Your task to perform on an android device: change the clock display to analog Image 0: 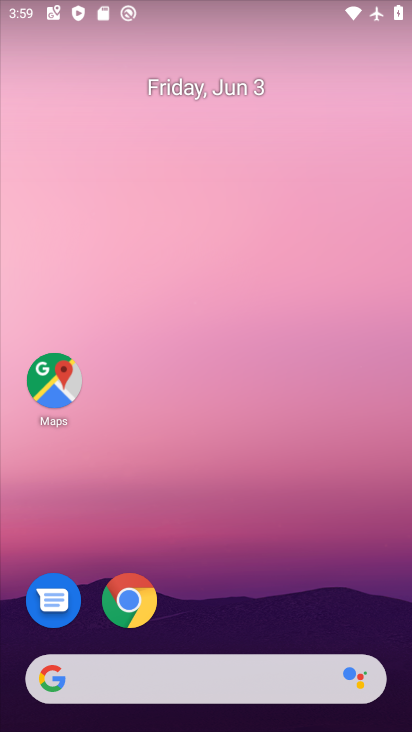
Step 0: drag from (198, 635) to (241, 11)
Your task to perform on an android device: change the clock display to analog Image 1: 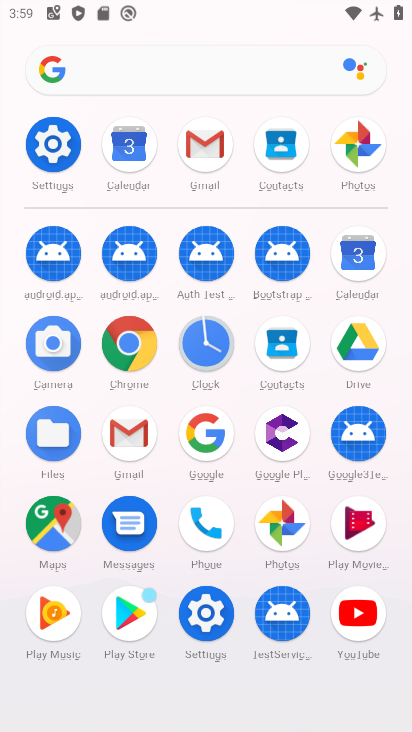
Step 1: click (205, 348)
Your task to perform on an android device: change the clock display to analog Image 2: 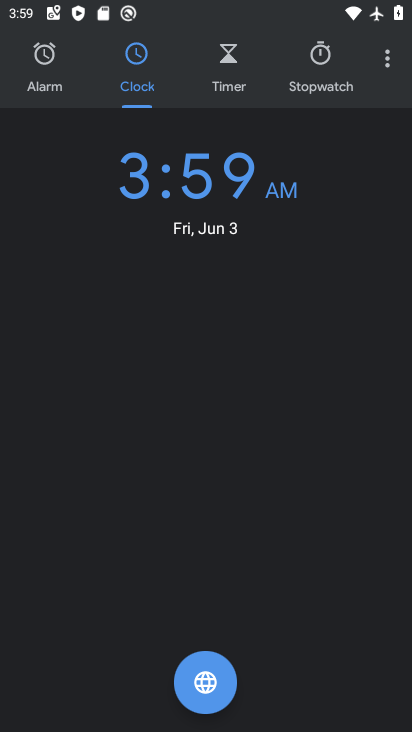
Step 2: click (387, 66)
Your task to perform on an android device: change the clock display to analog Image 3: 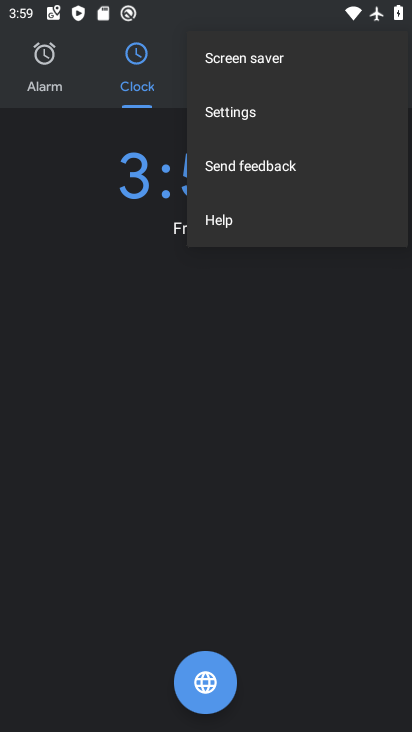
Step 3: click (239, 118)
Your task to perform on an android device: change the clock display to analog Image 4: 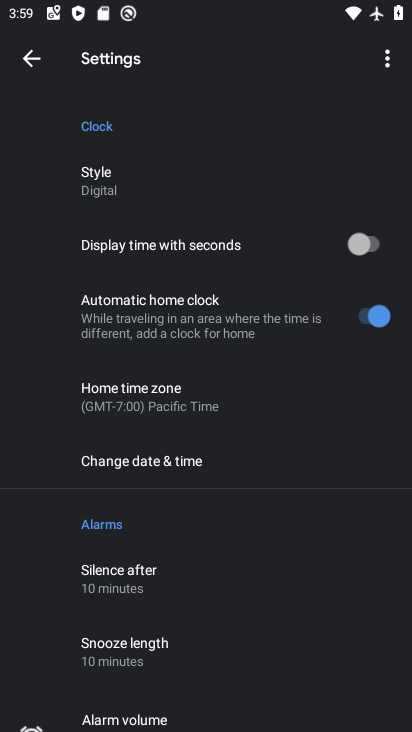
Step 4: click (114, 196)
Your task to perform on an android device: change the clock display to analog Image 5: 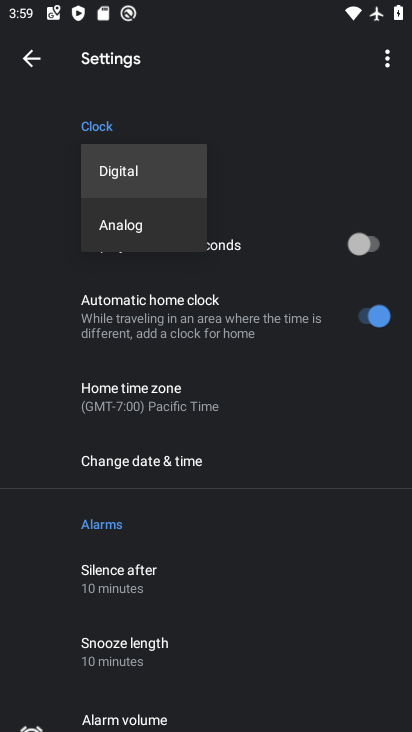
Step 5: click (128, 228)
Your task to perform on an android device: change the clock display to analog Image 6: 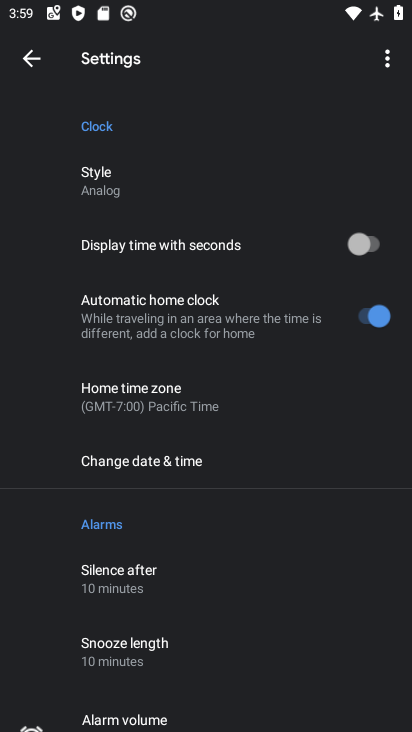
Step 6: task complete